Your task to perform on an android device: Open the calendar and show me this week's events? Image 0: 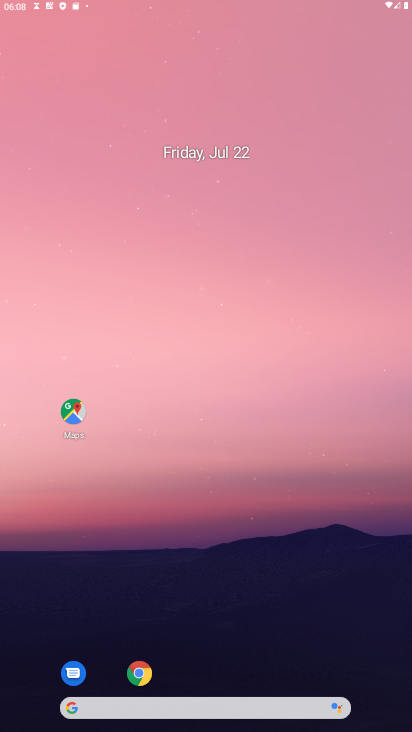
Step 0: press home button
Your task to perform on an android device: Open the calendar and show me this week's events? Image 1: 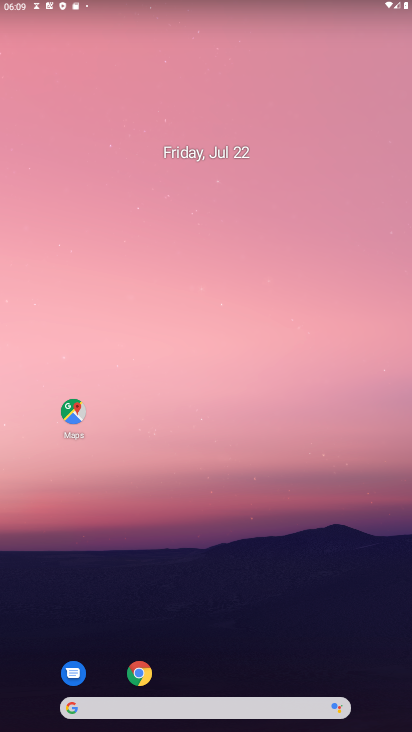
Step 1: drag from (254, 663) to (236, 339)
Your task to perform on an android device: Open the calendar and show me this week's events? Image 2: 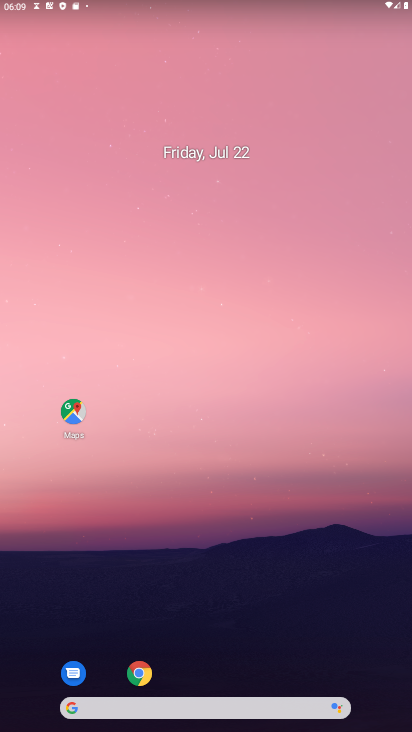
Step 2: drag from (276, 586) to (210, 0)
Your task to perform on an android device: Open the calendar and show me this week's events? Image 3: 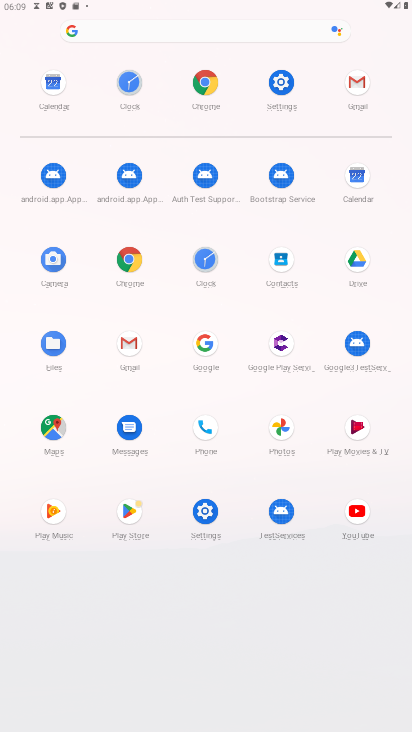
Step 3: click (354, 170)
Your task to perform on an android device: Open the calendar and show me this week's events? Image 4: 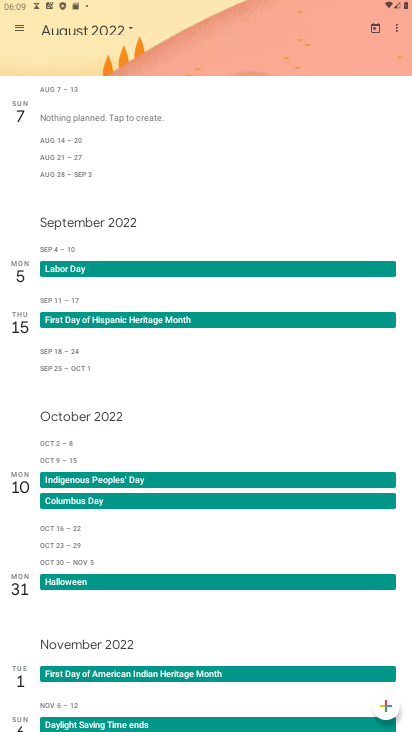
Step 4: click (93, 34)
Your task to perform on an android device: Open the calendar and show me this week's events? Image 5: 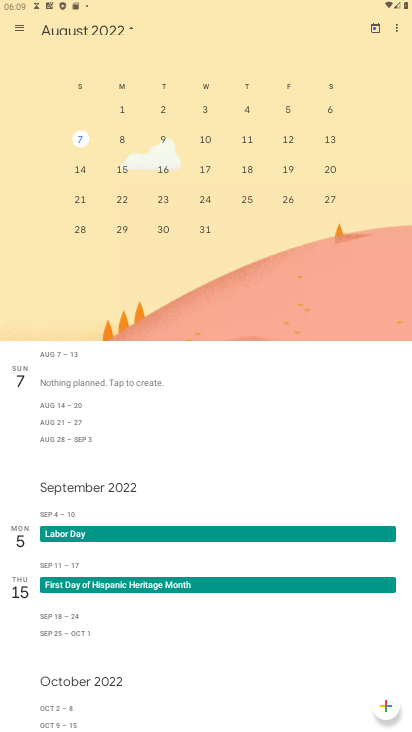
Step 5: drag from (156, 156) to (315, 158)
Your task to perform on an android device: Open the calendar and show me this week's events? Image 6: 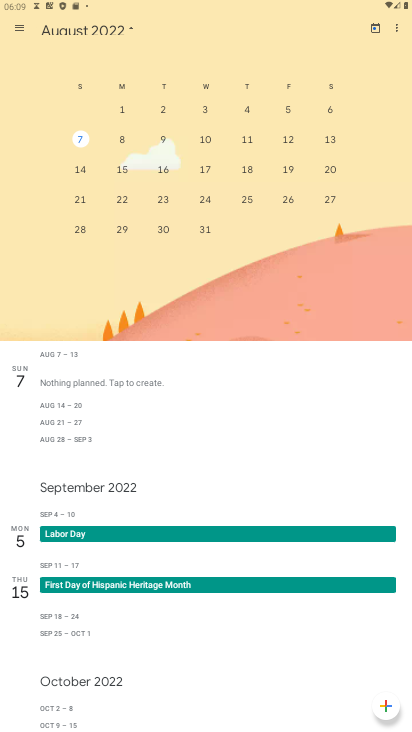
Step 6: click (30, 23)
Your task to perform on an android device: Open the calendar and show me this week's events? Image 7: 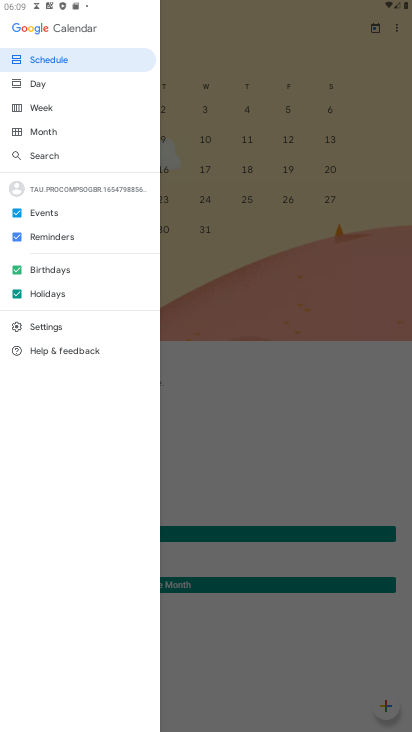
Step 7: click (51, 104)
Your task to perform on an android device: Open the calendar and show me this week's events? Image 8: 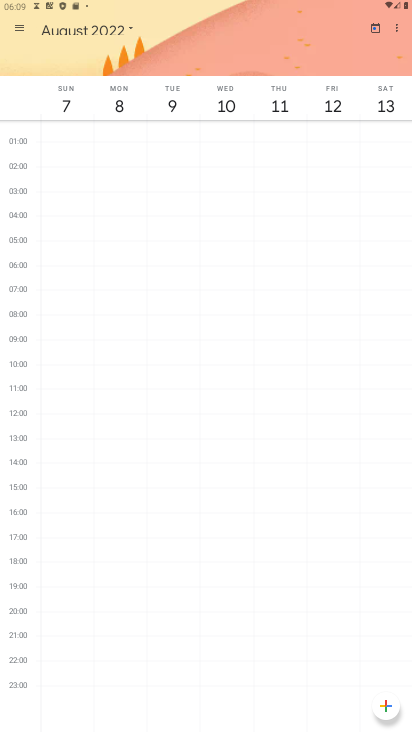
Step 8: task complete